Your task to perform on an android device: stop showing notifications on the lock screen Image 0: 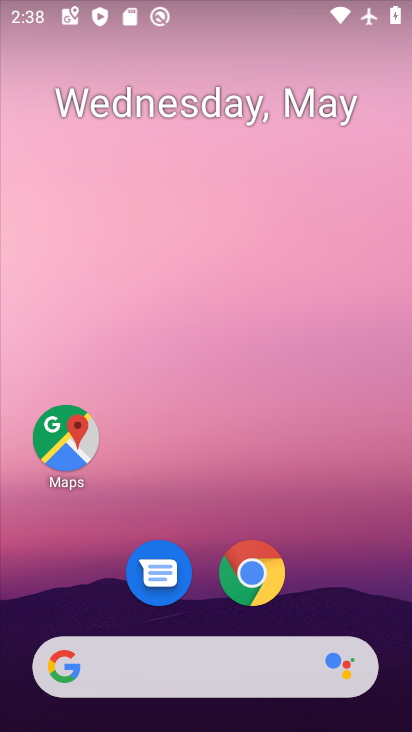
Step 0: drag from (349, 604) to (373, 50)
Your task to perform on an android device: stop showing notifications on the lock screen Image 1: 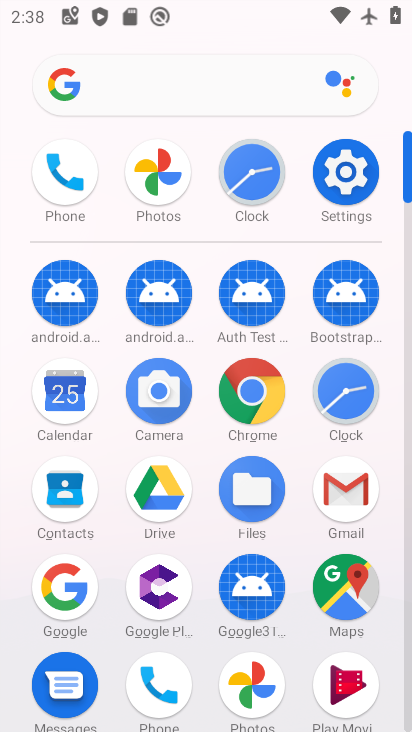
Step 1: click (339, 179)
Your task to perform on an android device: stop showing notifications on the lock screen Image 2: 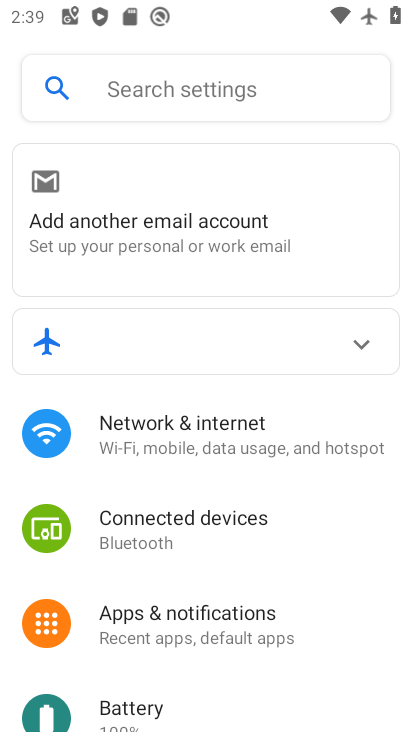
Step 2: click (193, 627)
Your task to perform on an android device: stop showing notifications on the lock screen Image 3: 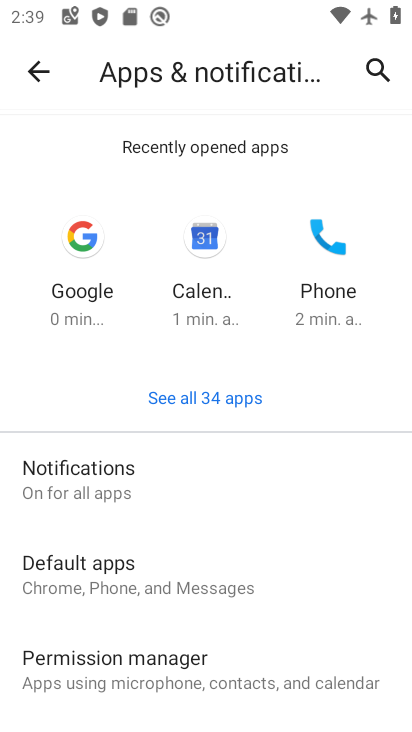
Step 3: click (204, 485)
Your task to perform on an android device: stop showing notifications on the lock screen Image 4: 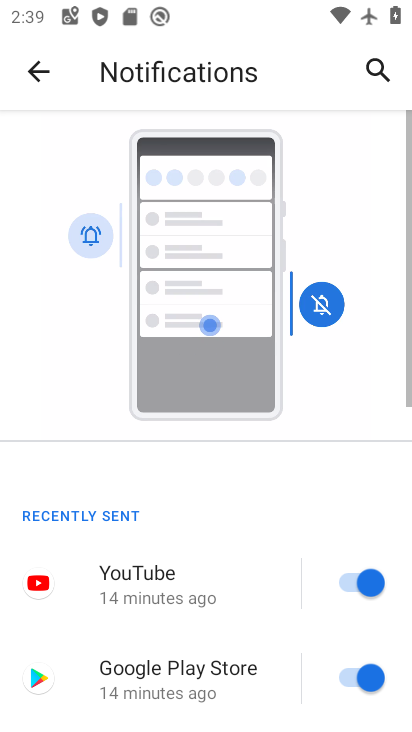
Step 4: drag from (232, 643) to (278, 221)
Your task to perform on an android device: stop showing notifications on the lock screen Image 5: 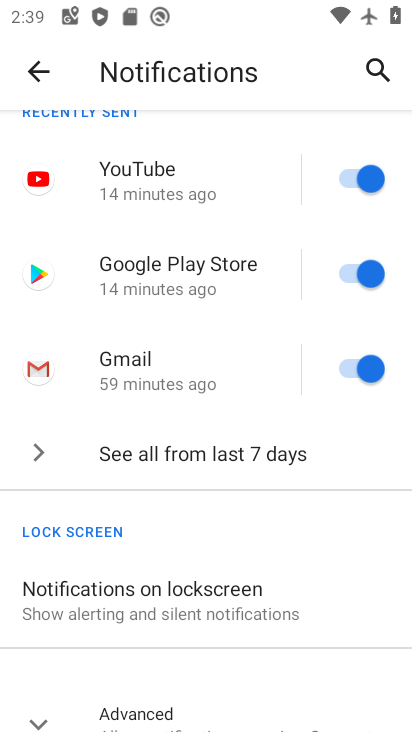
Step 5: click (237, 603)
Your task to perform on an android device: stop showing notifications on the lock screen Image 6: 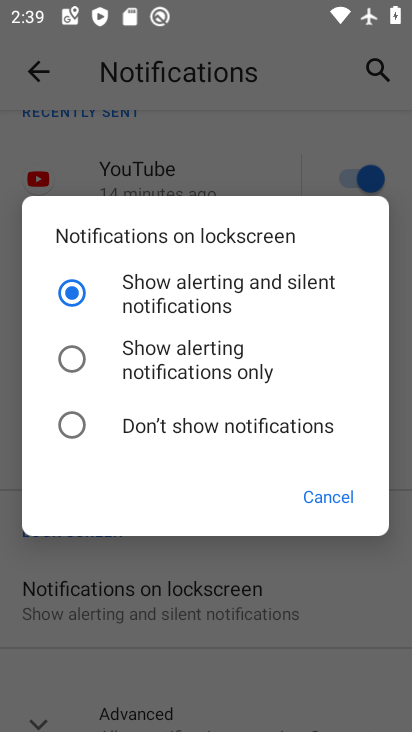
Step 6: click (196, 423)
Your task to perform on an android device: stop showing notifications on the lock screen Image 7: 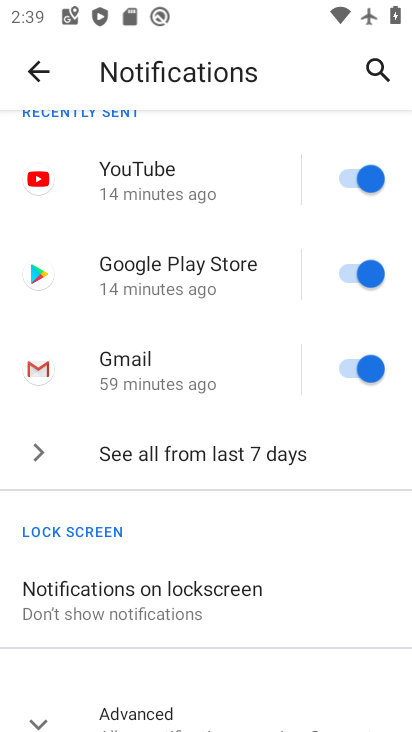
Step 7: task complete